Your task to perform on an android device: turn off javascript in the chrome app Image 0: 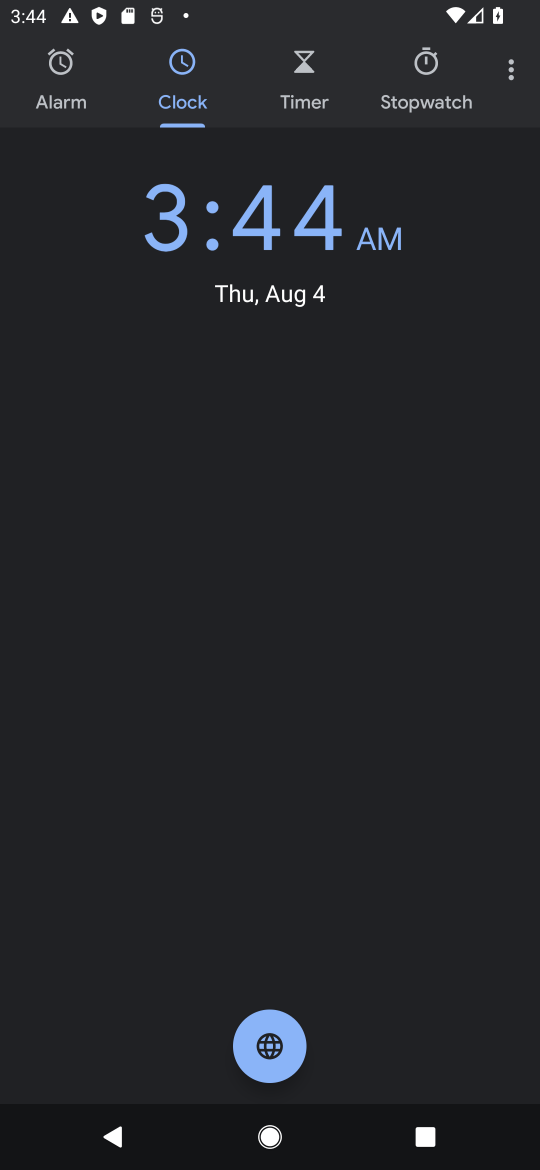
Step 0: press home button
Your task to perform on an android device: turn off javascript in the chrome app Image 1: 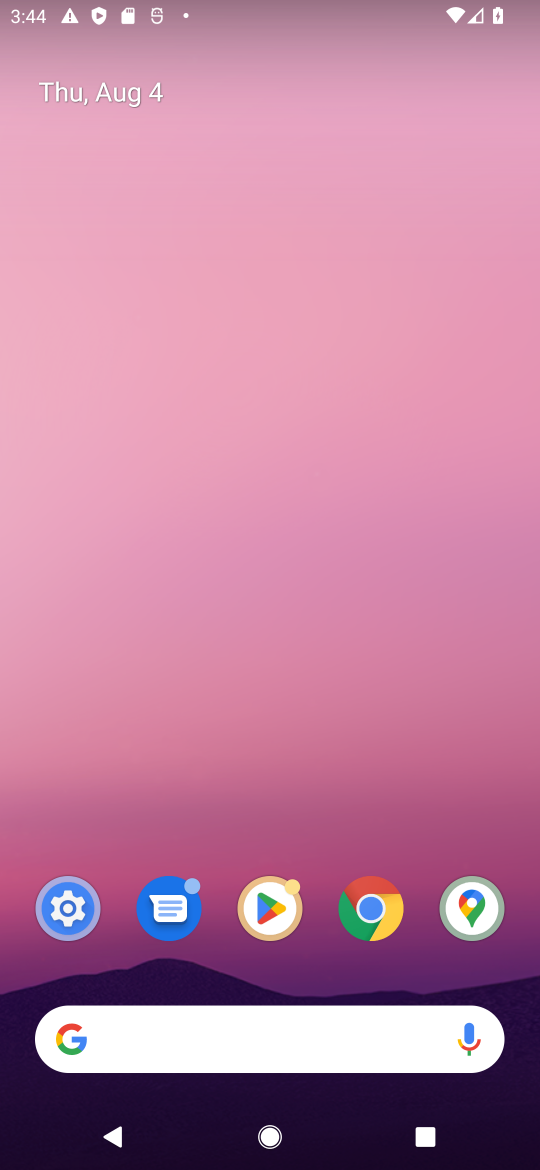
Step 1: drag from (216, 951) to (94, 196)
Your task to perform on an android device: turn off javascript in the chrome app Image 2: 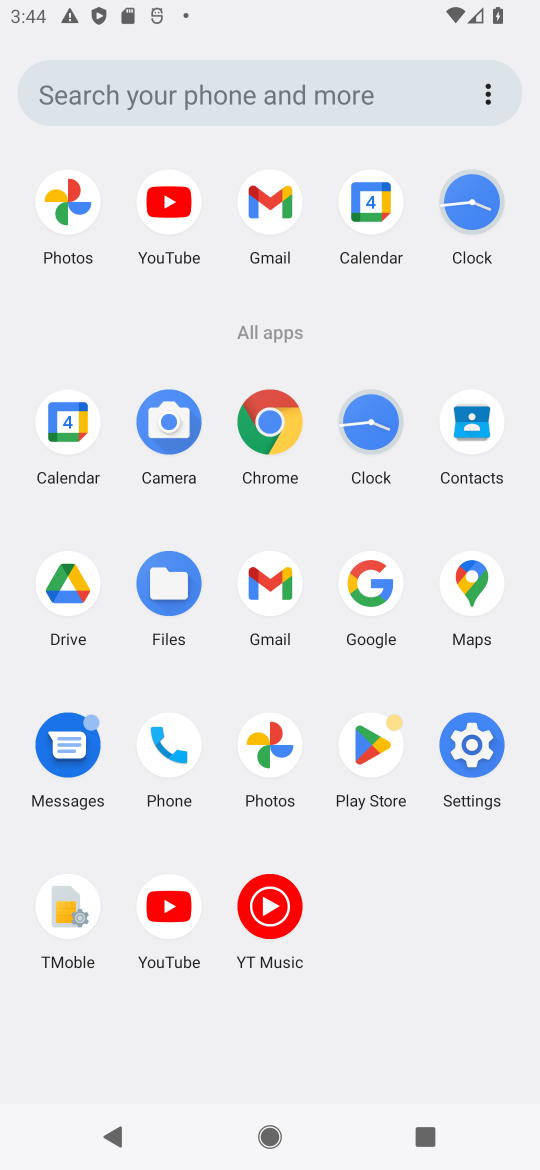
Step 2: click (286, 424)
Your task to perform on an android device: turn off javascript in the chrome app Image 3: 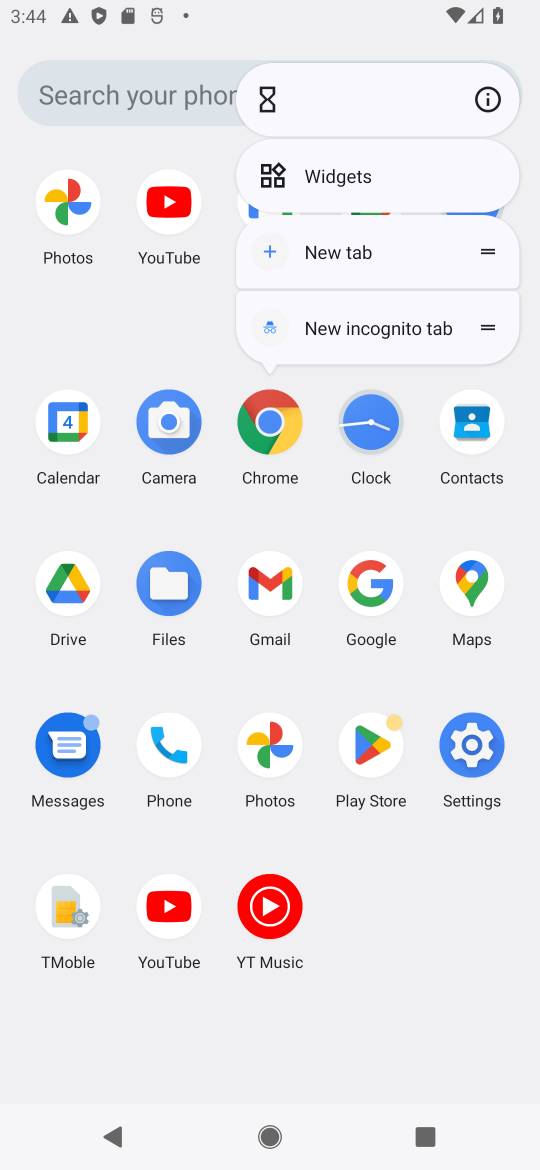
Step 3: click (286, 422)
Your task to perform on an android device: turn off javascript in the chrome app Image 4: 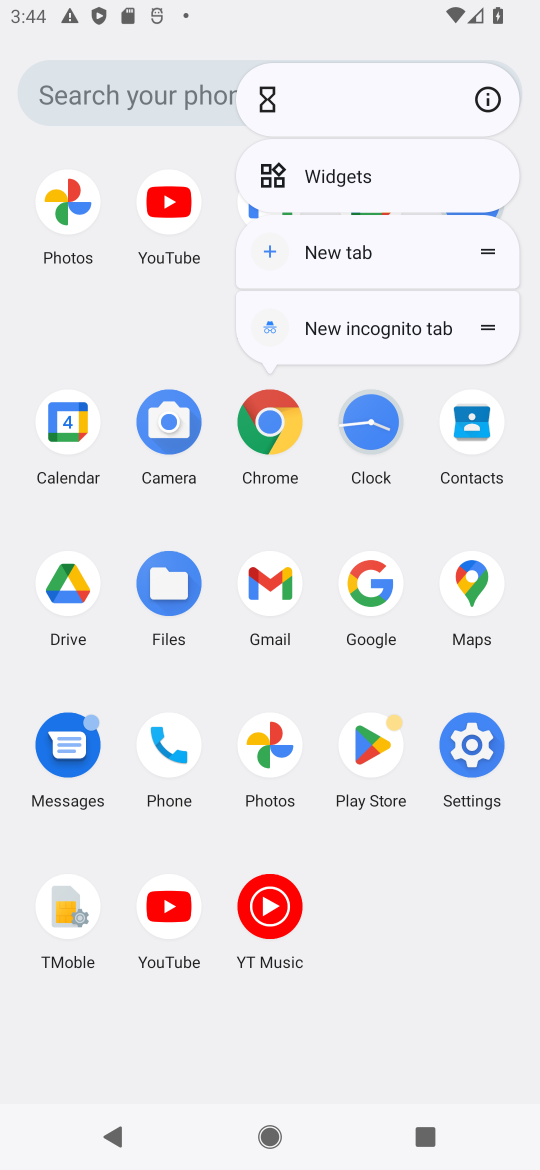
Step 4: click (286, 422)
Your task to perform on an android device: turn off javascript in the chrome app Image 5: 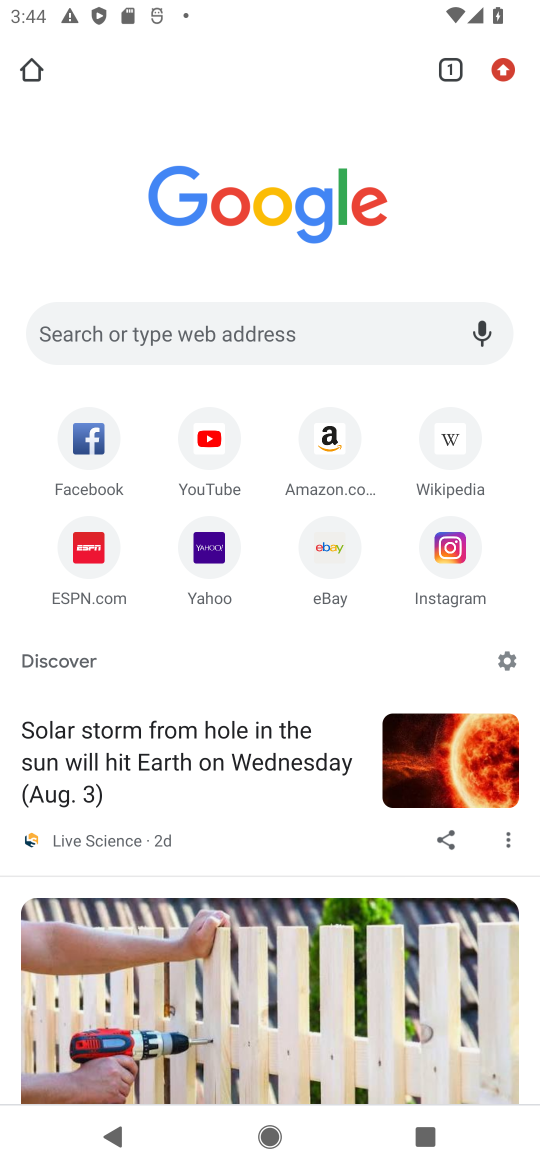
Step 5: drag from (513, 71) to (264, 726)
Your task to perform on an android device: turn off javascript in the chrome app Image 6: 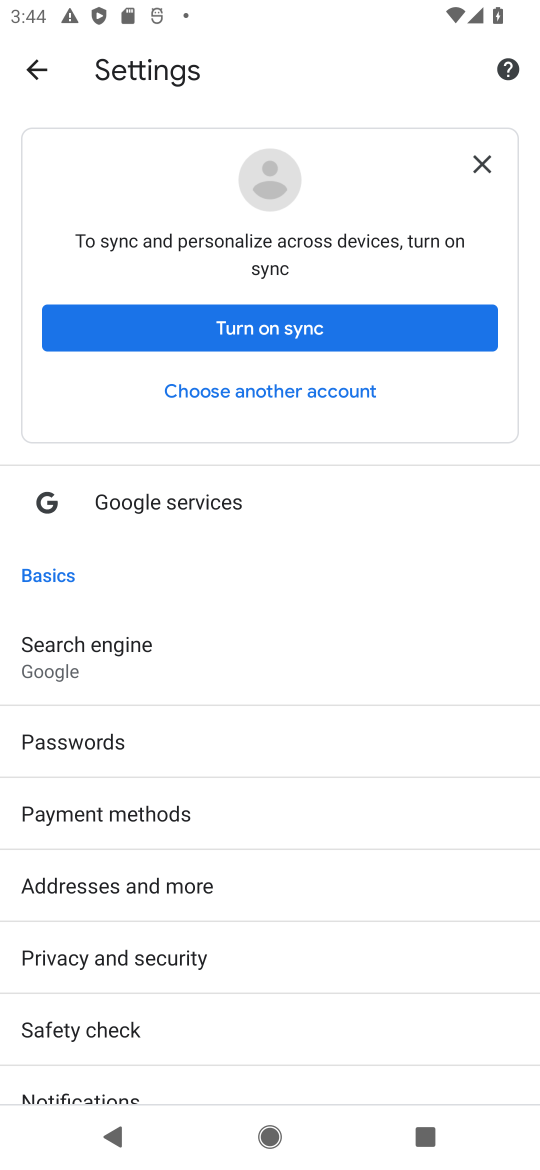
Step 6: drag from (165, 1020) to (126, 437)
Your task to perform on an android device: turn off javascript in the chrome app Image 7: 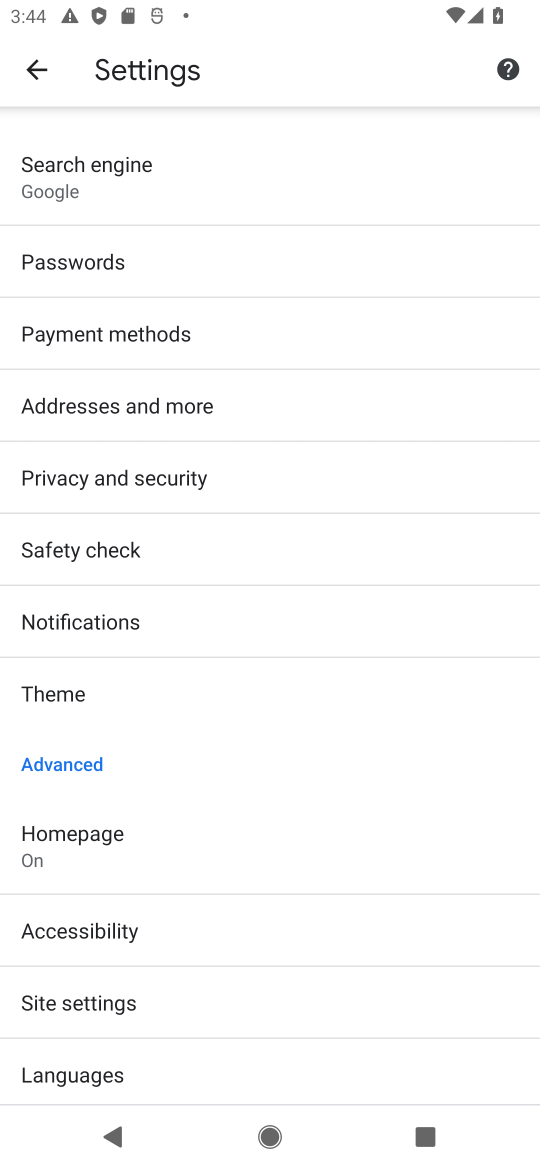
Step 7: click (32, 1021)
Your task to perform on an android device: turn off javascript in the chrome app Image 8: 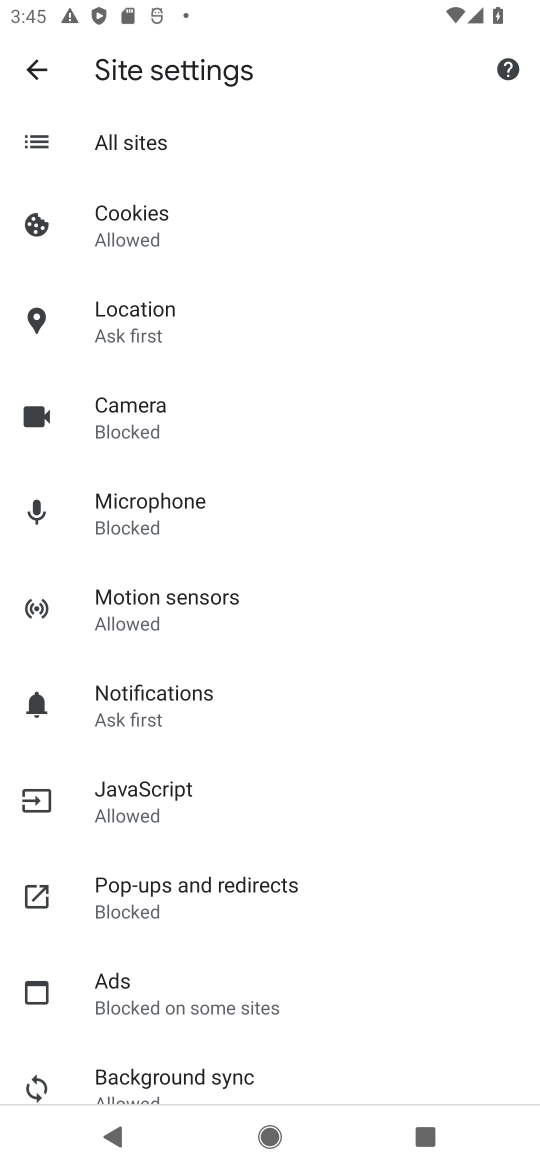
Step 8: drag from (216, 874) to (107, 350)
Your task to perform on an android device: turn off javascript in the chrome app Image 9: 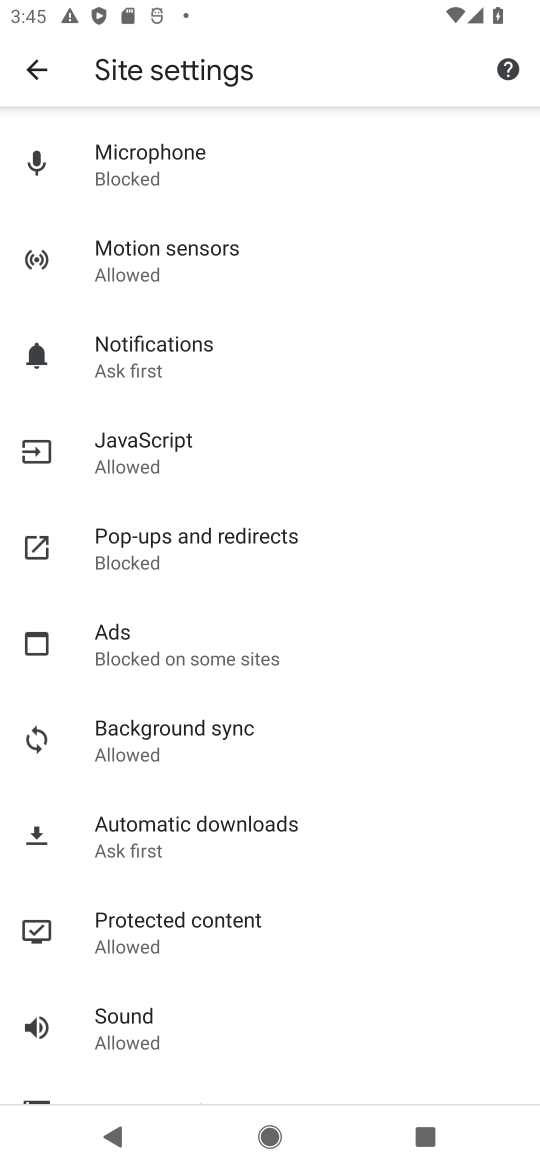
Step 9: click (108, 460)
Your task to perform on an android device: turn off javascript in the chrome app Image 10: 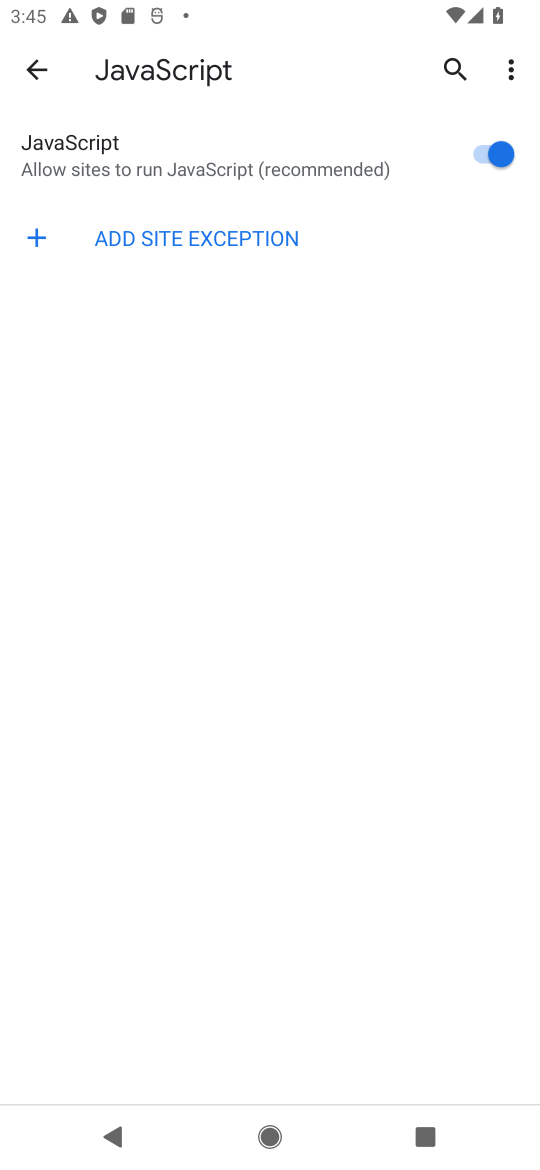
Step 10: click (480, 159)
Your task to perform on an android device: turn off javascript in the chrome app Image 11: 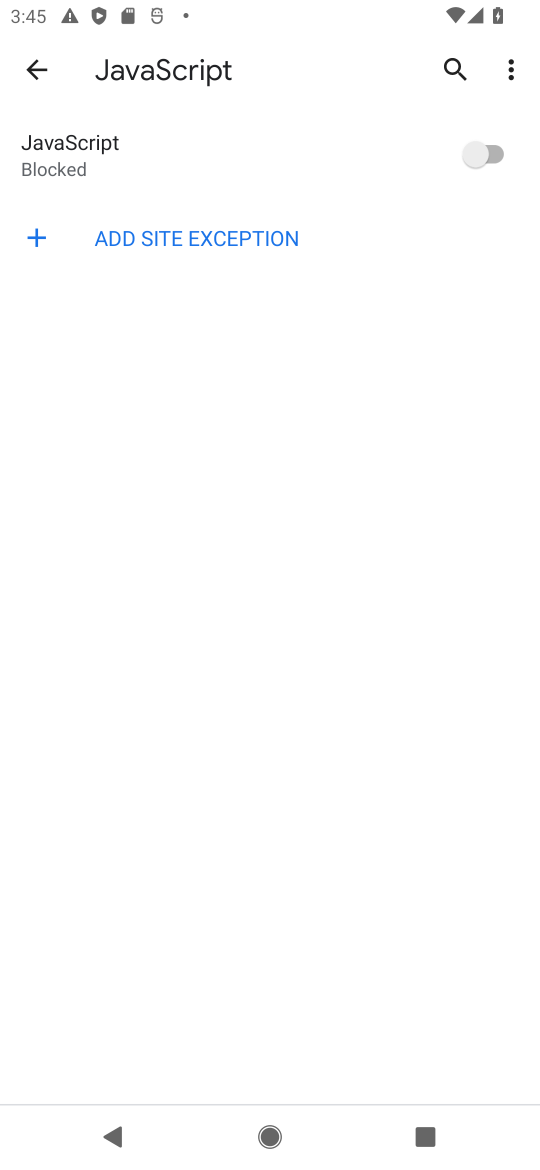
Step 11: task complete